Your task to perform on an android device: Open Chrome and go to the settings page Image 0: 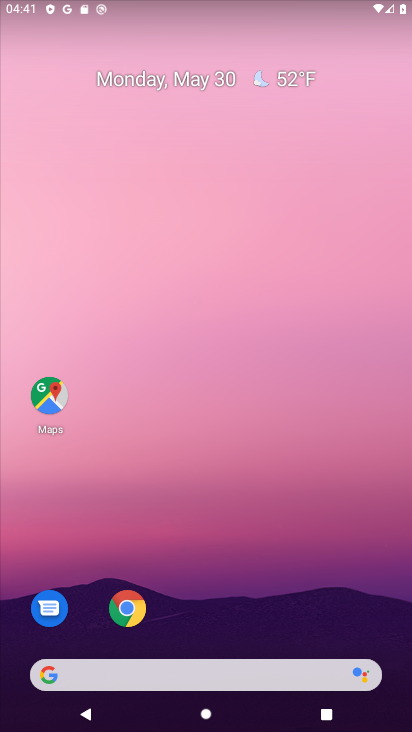
Step 0: click (126, 618)
Your task to perform on an android device: Open Chrome and go to the settings page Image 1: 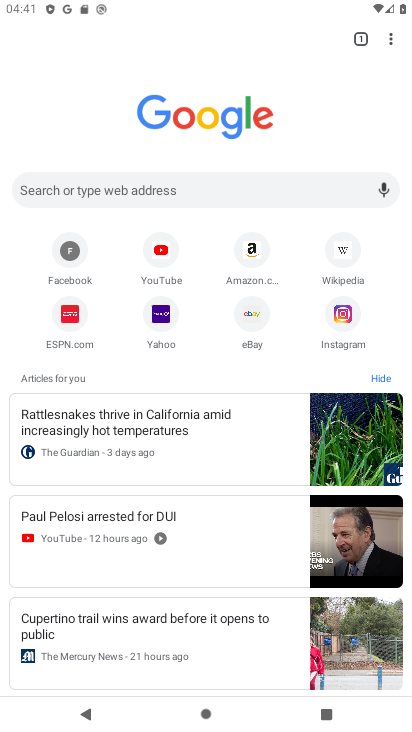
Step 1: click (389, 33)
Your task to perform on an android device: Open Chrome and go to the settings page Image 2: 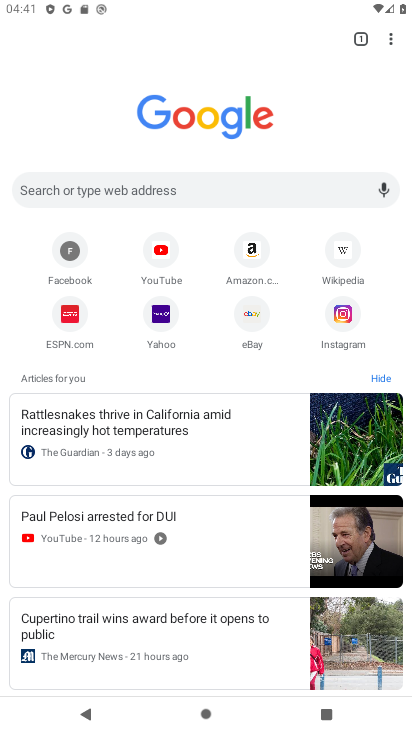
Step 2: click (391, 40)
Your task to perform on an android device: Open Chrome and go to the settings page Image 3: 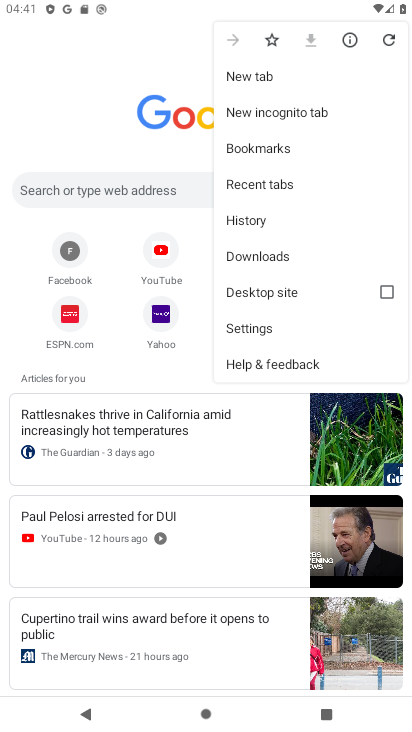
Step 3: click (260, 333)
Your task to perform on an android device: Open Chrome and go to the settings page Image 4: 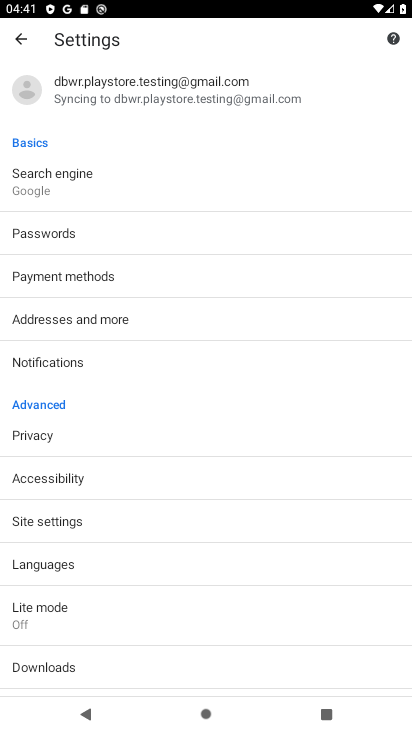
Step 4: task complete